Your task to perform on an android device: turn on translation in the chrome app Image 0: 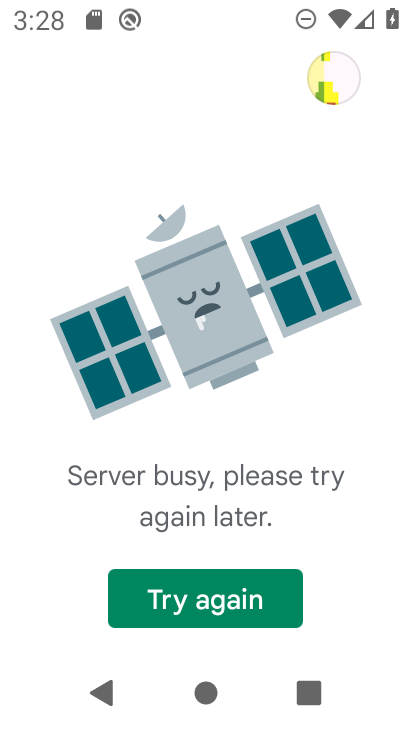
Step 0: press home button
Your task to perform on an android device: turn on translation in the chrome app Image 1: 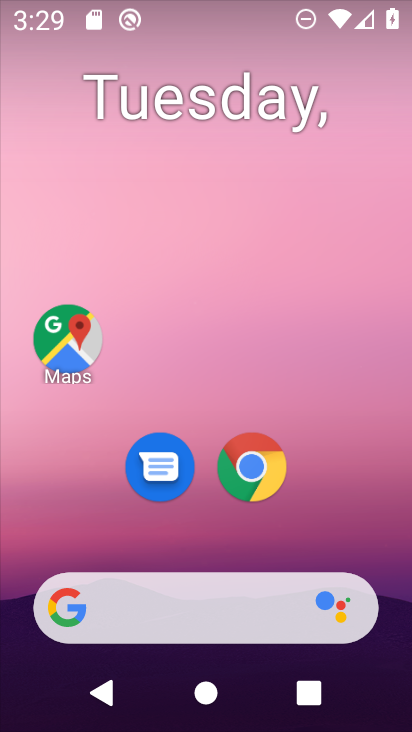
Step 1: drag from (198, 530) to (228, 83)
Your task to perform on an android device: turn on translation in the chrome app Image 2: 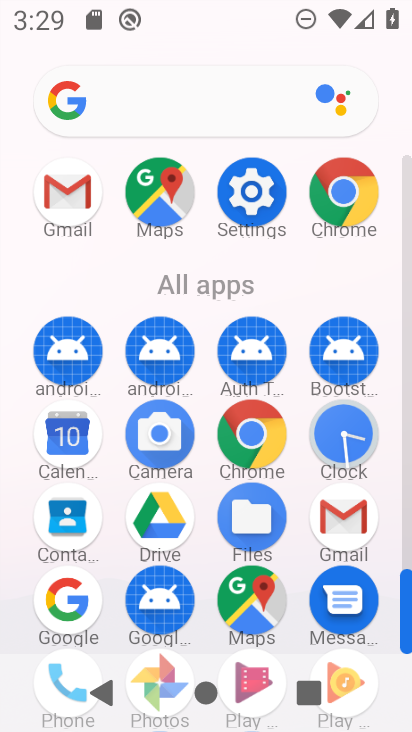
Step 2: click (249, 442)
Your task to perform on an android device: turn on translation in the chrome app Image 3: 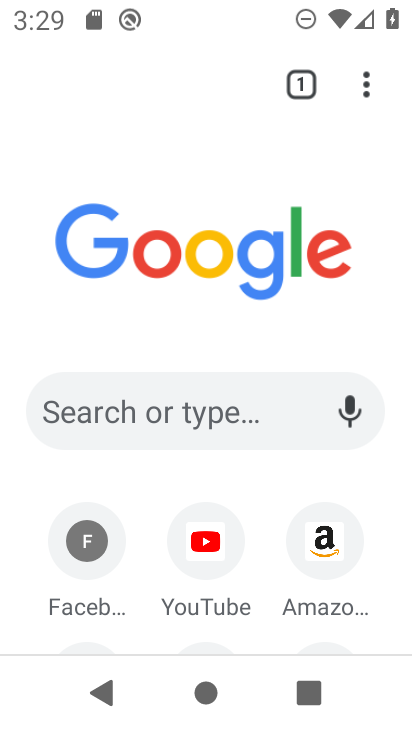
Step 3: click (364, 70)
Your task to perform on an android device: turn on translation in the chrome app Image 4: 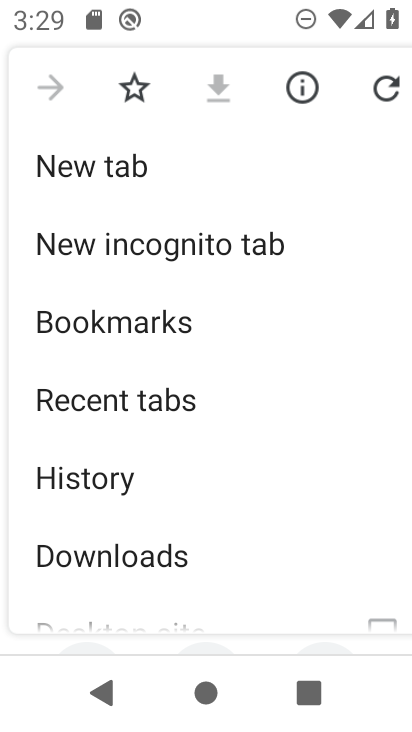
Step 4: drag from (143, 506) to (66, 4)
Your task to perform on an android device: turn on translation in the chrome app Image 5: 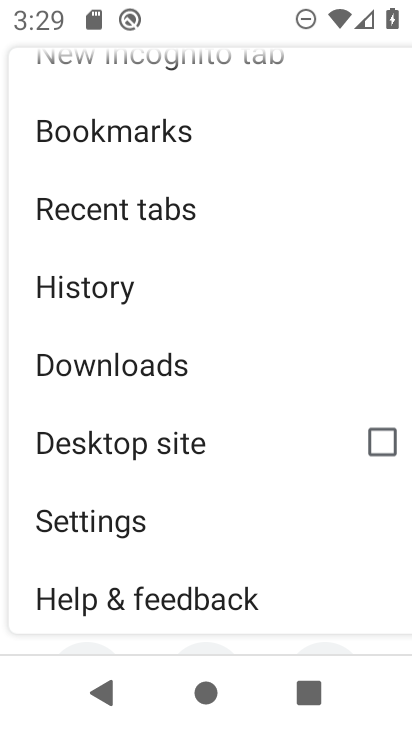
Step 5: click (104, 533)
Your task to perform on an android device: turn on translation in the chrome app Image 6: 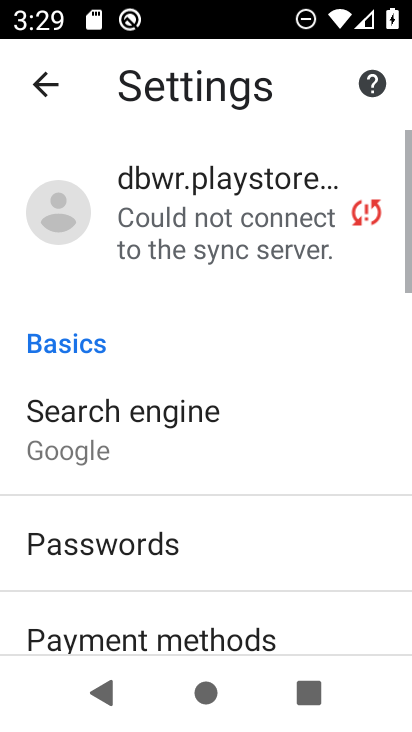
Step 6: drag from (104, 533) to (7, 31)
Your task to perform on an android device: turn on translation in the chrome app Image 7: 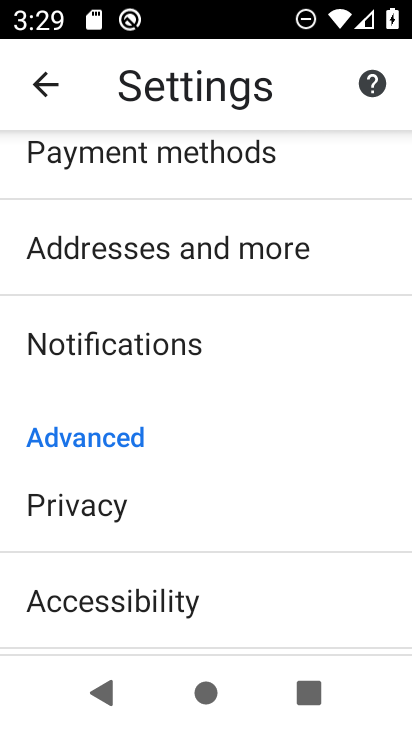
Step 7: drag from (156, 584) to (74, 67)
Your task to perform on an android device: turn on translation in the chrome app Image 8: 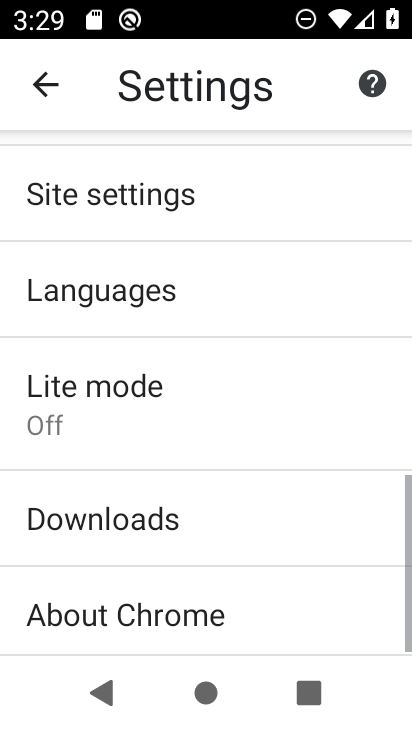
Step 8: click (68, 287)
Your task to perform on an android device: turn on translation in the chrome app Image 9: 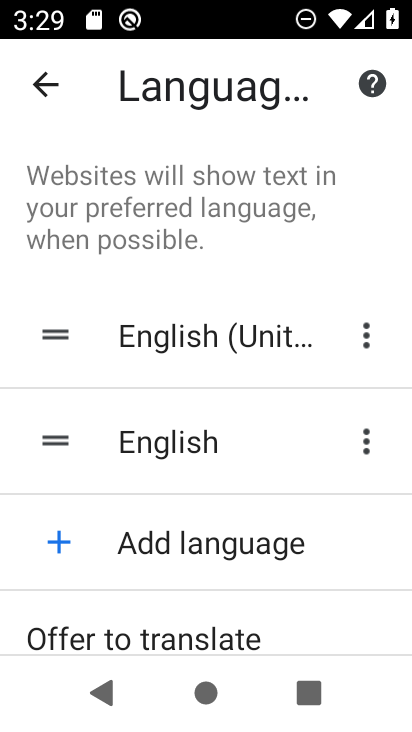
Step 9: task complete